Your task to perform on an android device: Open Android settings Image 0: 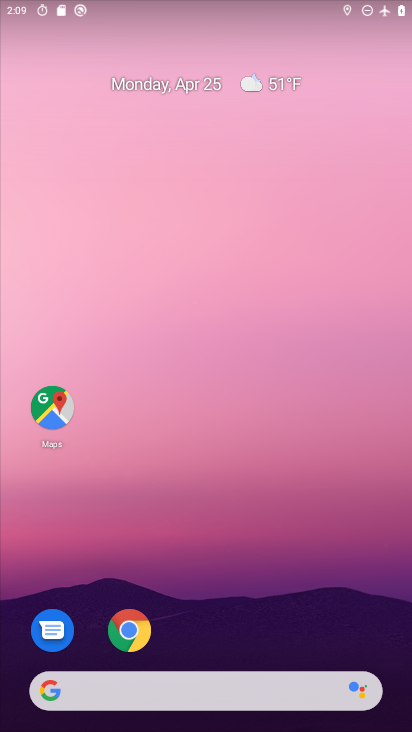
Step 0: drag from (331, 595) to (362, 43)
Your task to perform on an android device: Open Android settings Image 1: 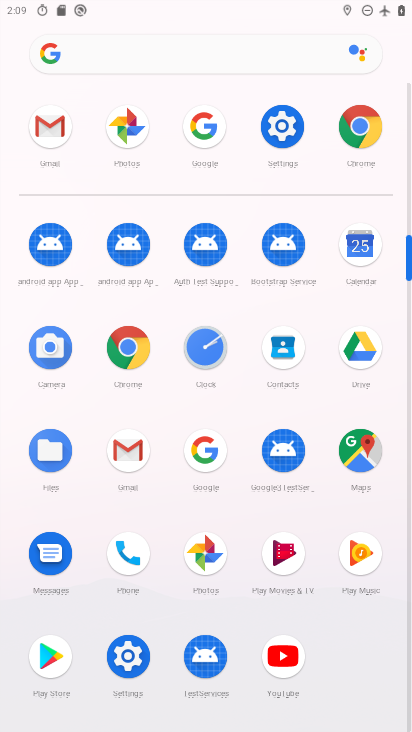
Step 1: click (285, 121)
Your task to perform on an android device: Open Android settings Image 2: 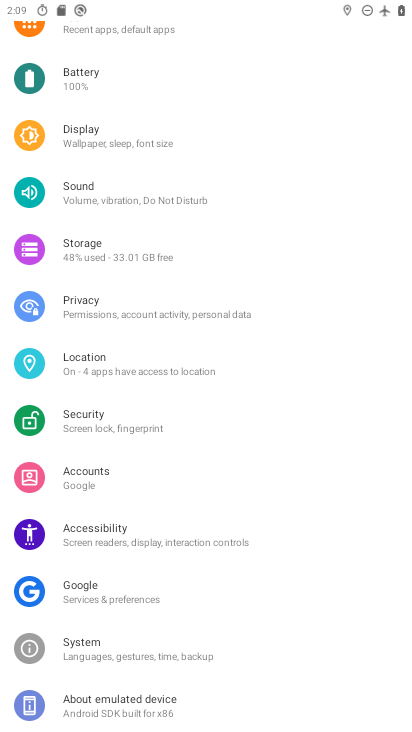
Step 2: drag from (259, 537) to (269, 125)
Your task to perform on an android device: Open Android settings Image 3: 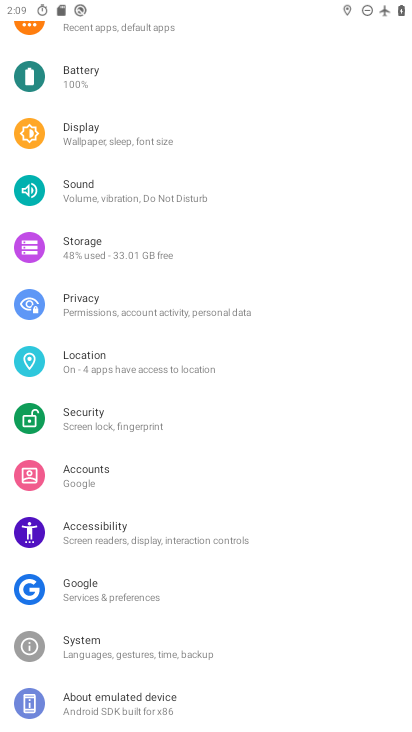
Step 3: drag from (233, 509) to (235, 64)
Your task to perform on an android device: Open Android settings Image 4: 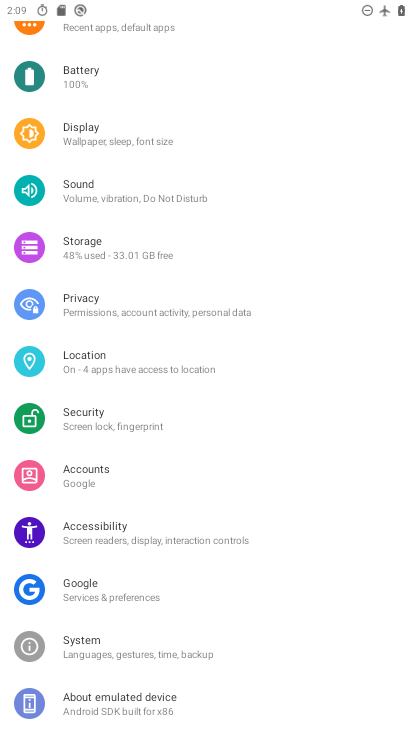
Step 4: click (100, 701)
Your task to perform on an android device: Open Android settings Image 5: 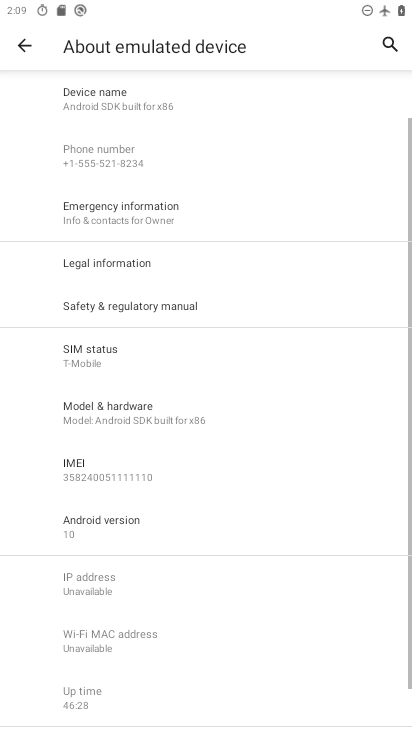
Step 5: task complete